Your task to perform on an android device: star an email in the gmail app Image 0: 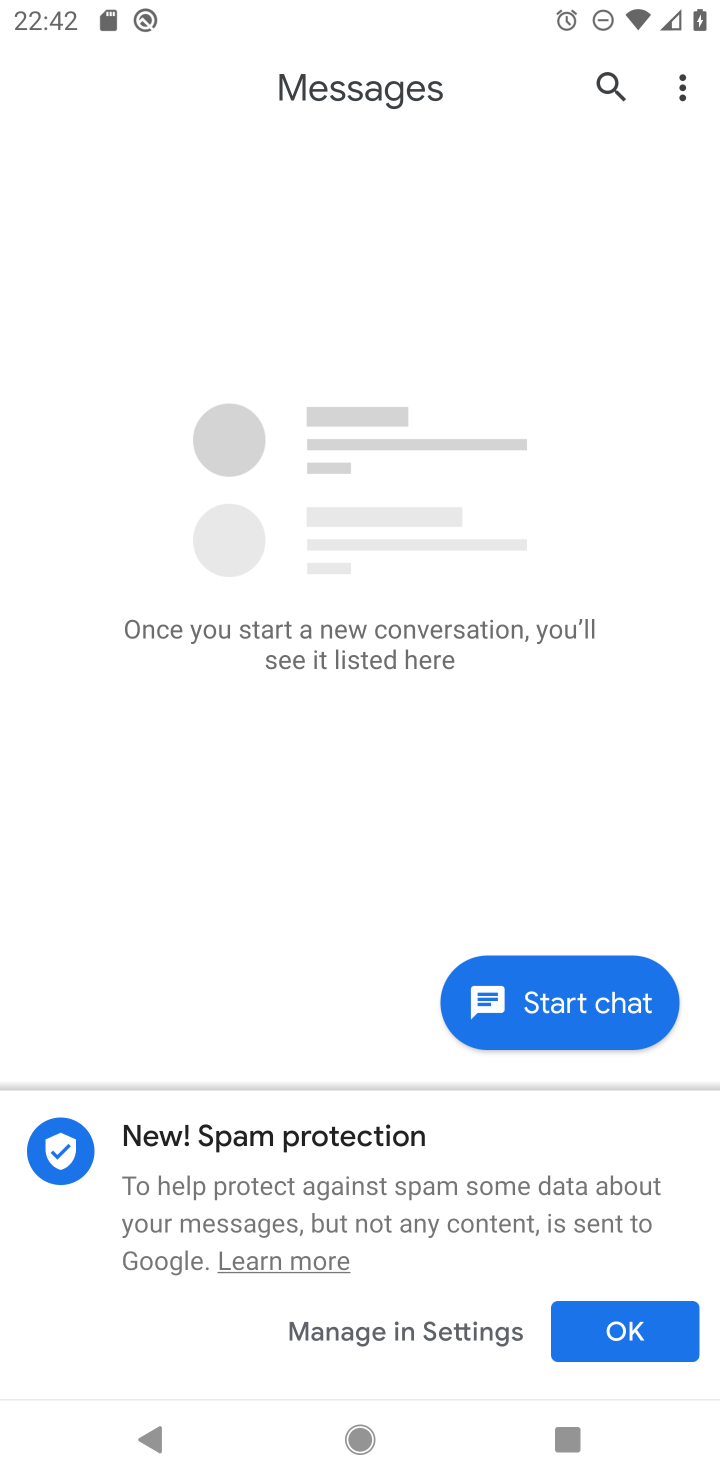
Step 0: press home button
Your task to perform on an android device: star an email in the gmail app Image 1: 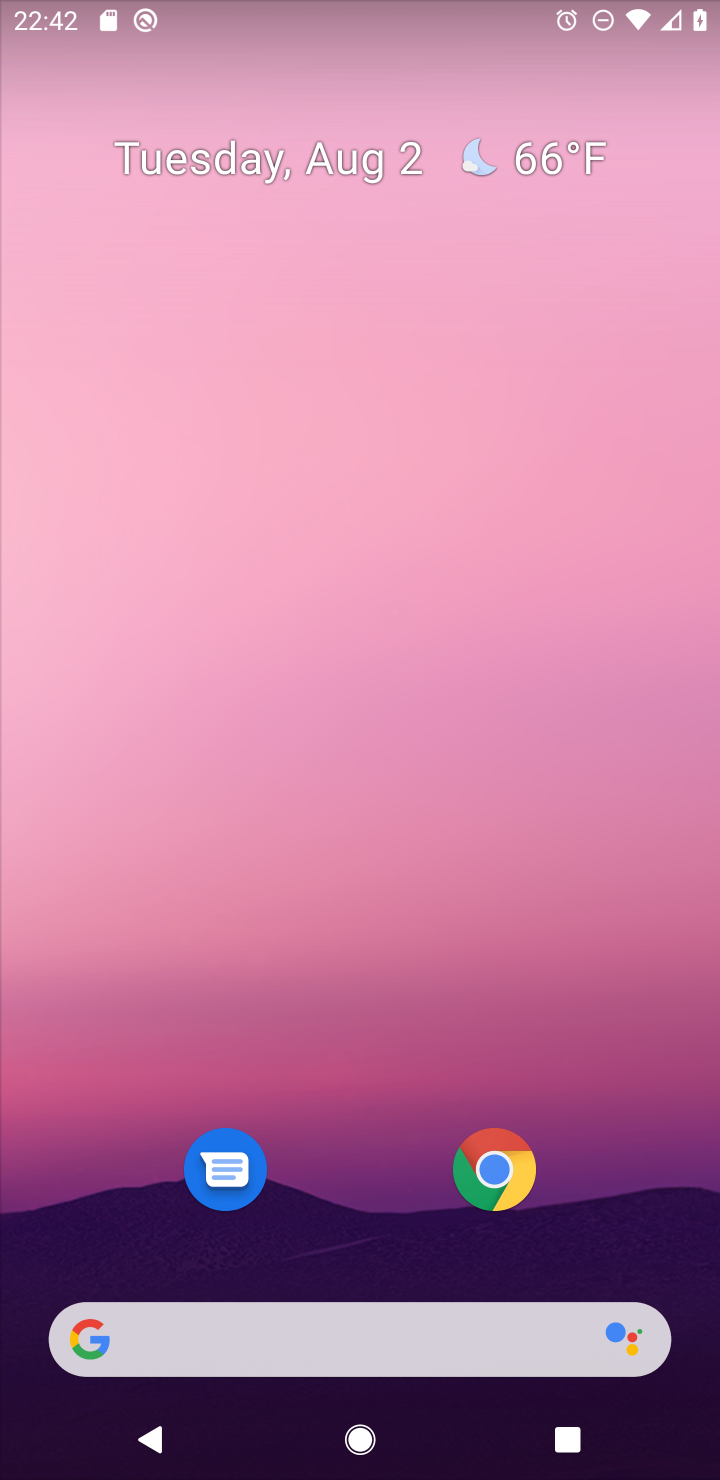
Step 1: drag from (388, 1003) to (381, 293)
Your task to perform on an android device: star an email in the gmail app Image 2: 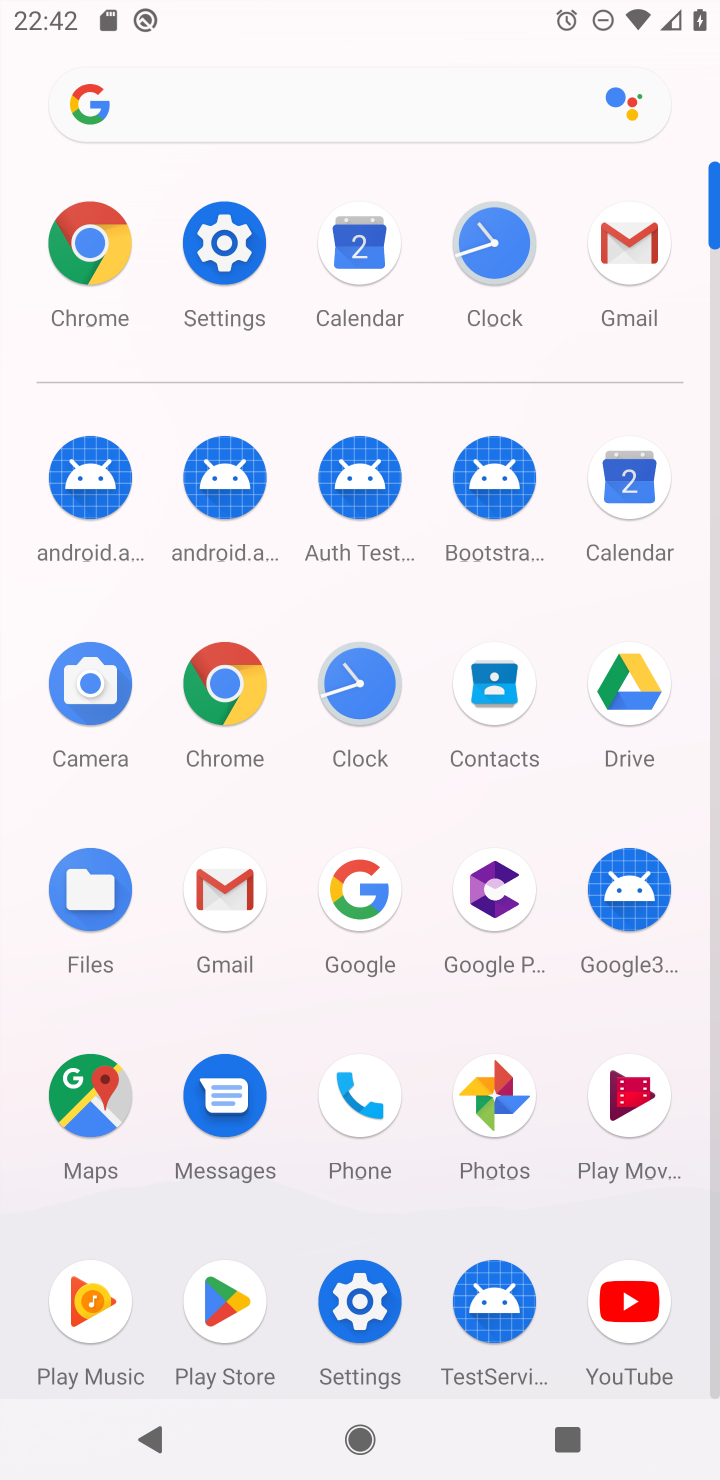
Step 2: click (218, 888)
Your task to perform on an android device: star an email in the gmail app Image 3: 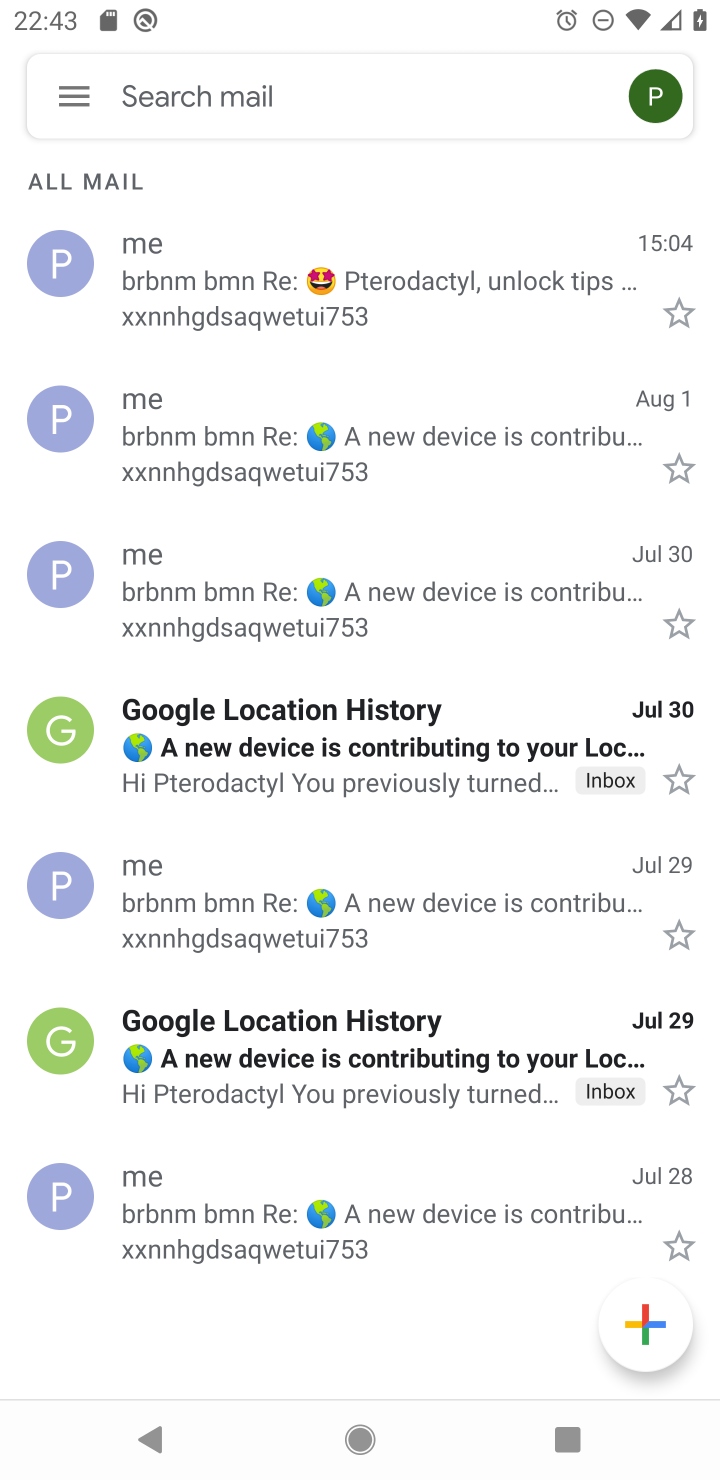
Step 3: click (415, 446)
Your task to perform on an android device: star an email in the gmail app Image 4: 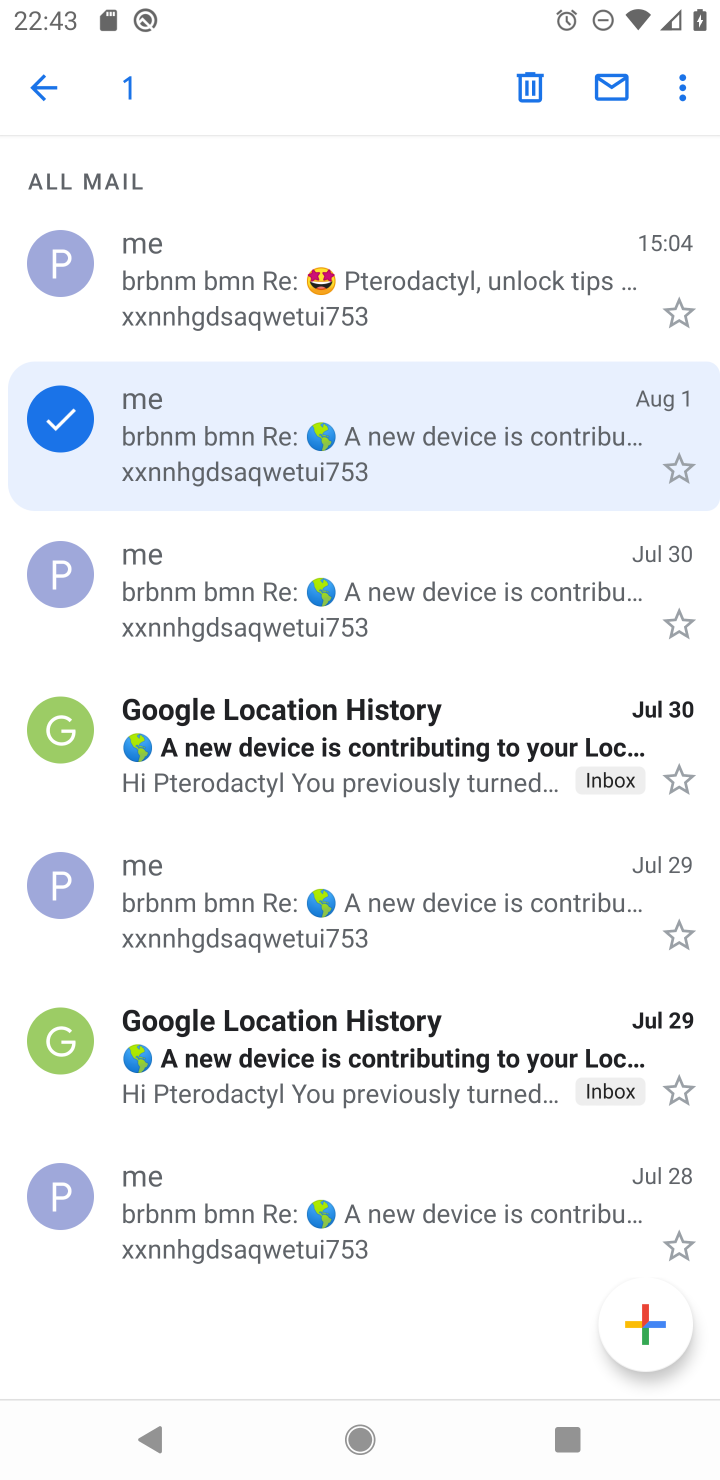
Step 4: click (680, 96)
Your task to perform on an android device: star an email in the gmail app Image 5: 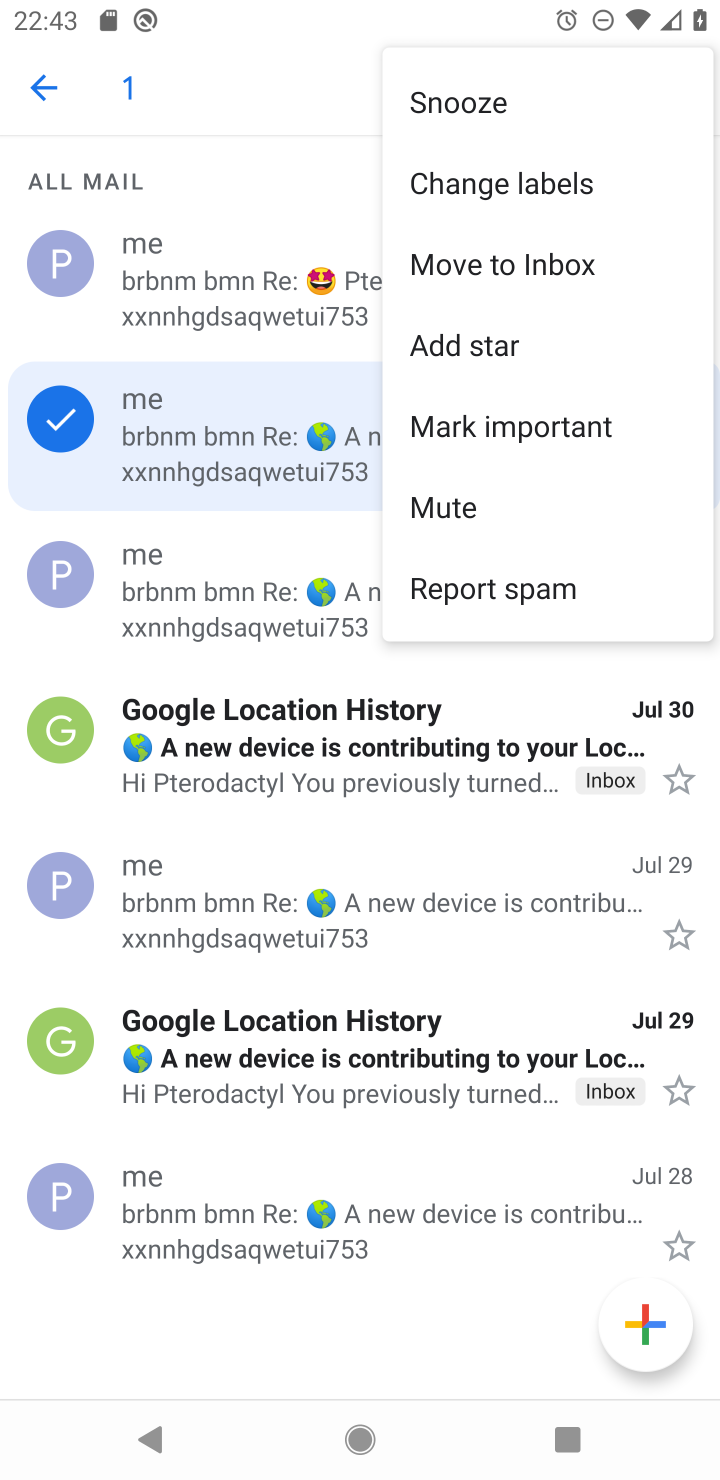
Step 5: click (495, 335)
Your task to perform on an android device: star an email in the gmail app Image 6: 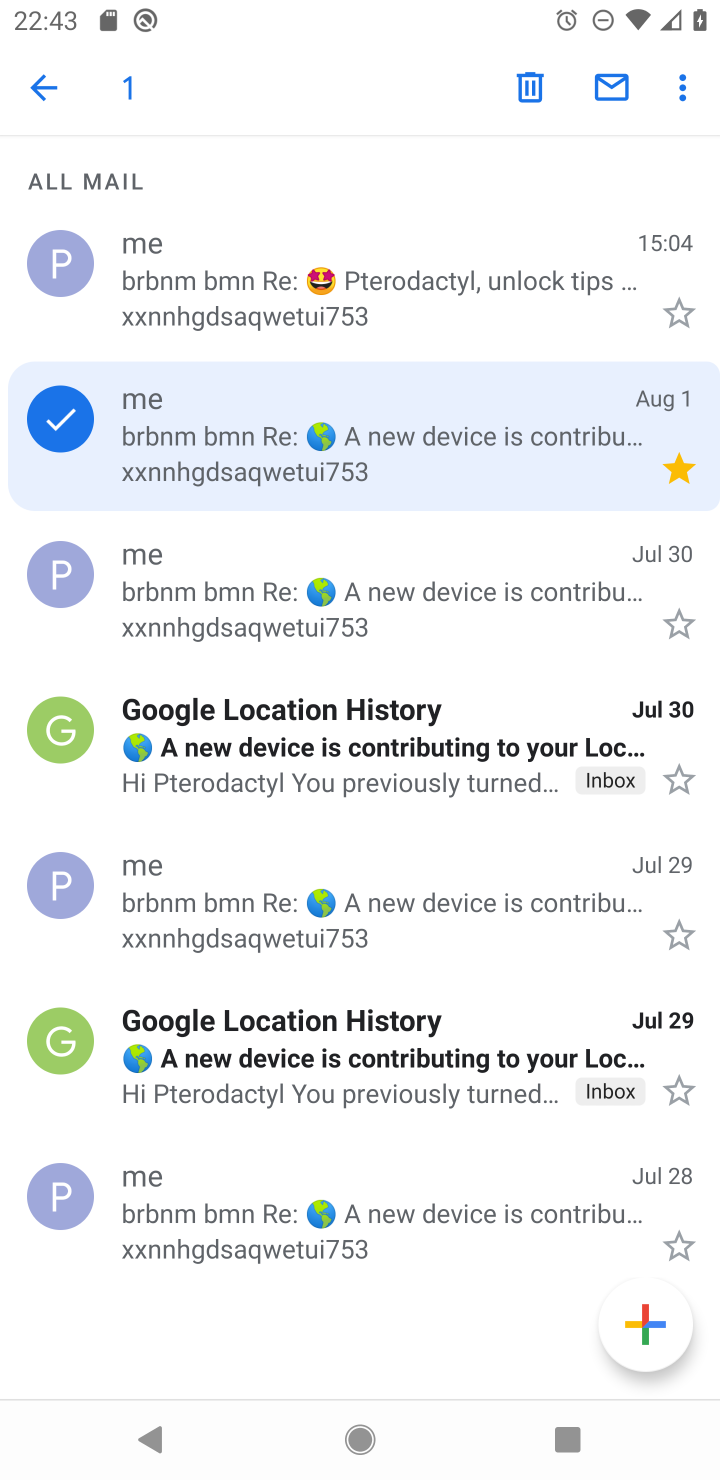
Step 6: task complete